Your task to perform on an android device: View the shopping cart on ebay.com. Image 0: 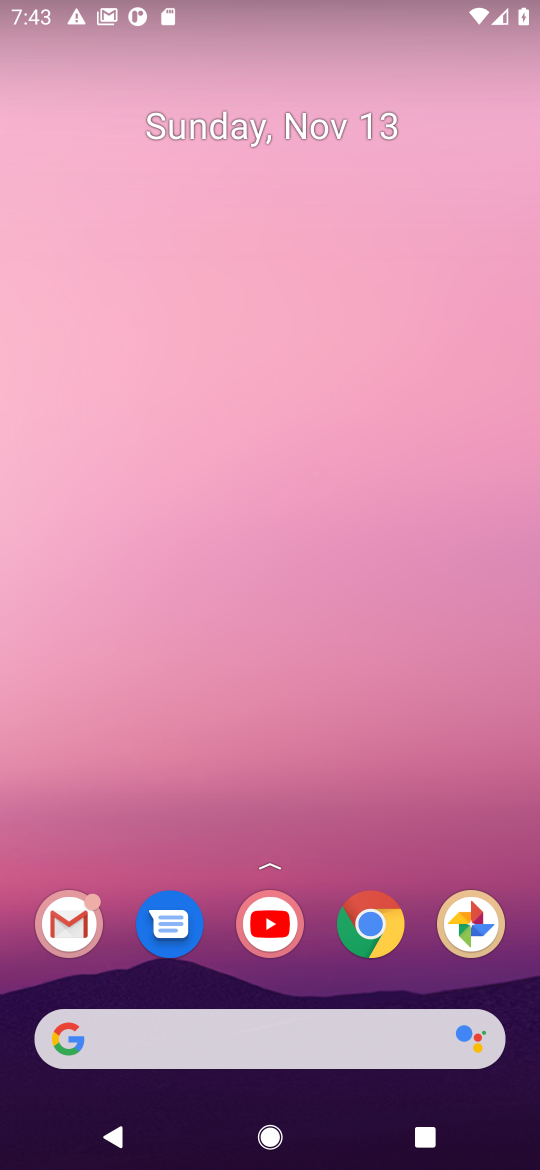
Step 0: click (379, 932)
Your task to perform on an android device: View the shopping cart on ebay.com. Image 1: 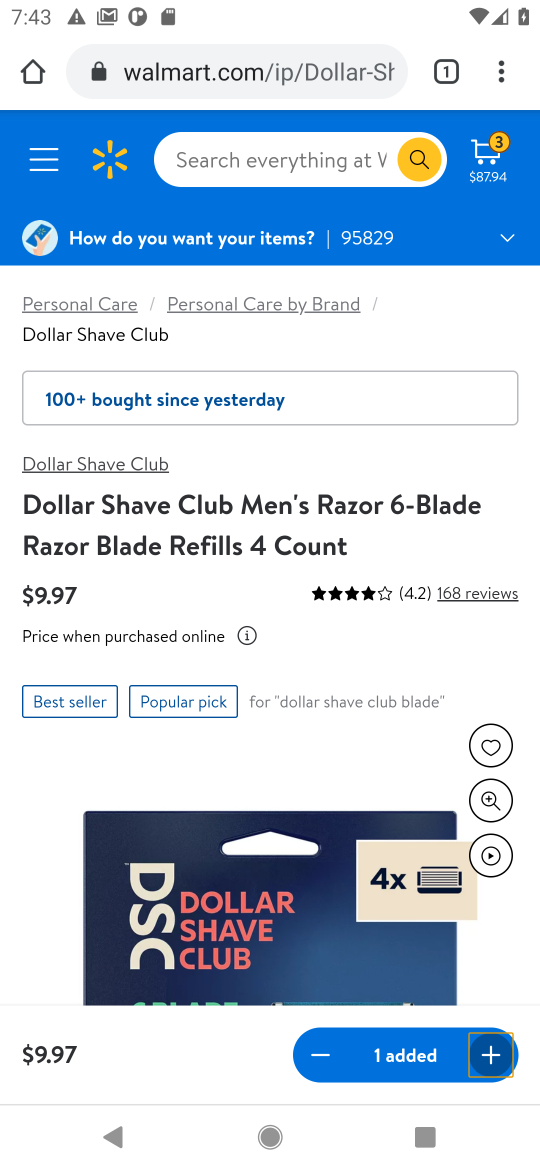
Step 1: click (317, 78)
Your task to perform on an android device: View the shopping cart on ebay.com. Image 2: 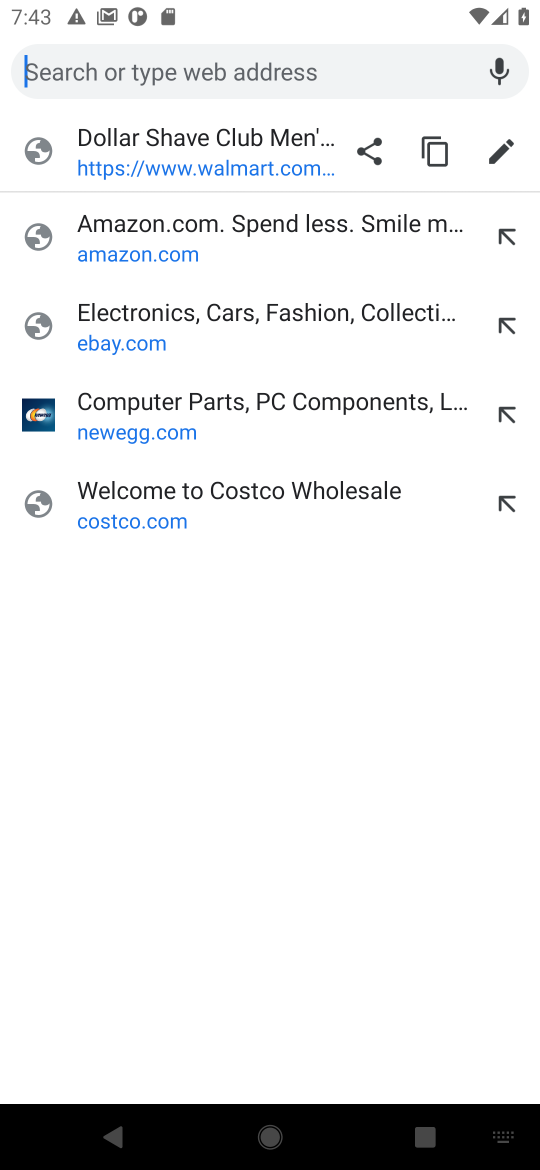
Step 2: click (165, 338)
Your task to perform on an android device: View the shopping cart on ebay.com. Image 3: 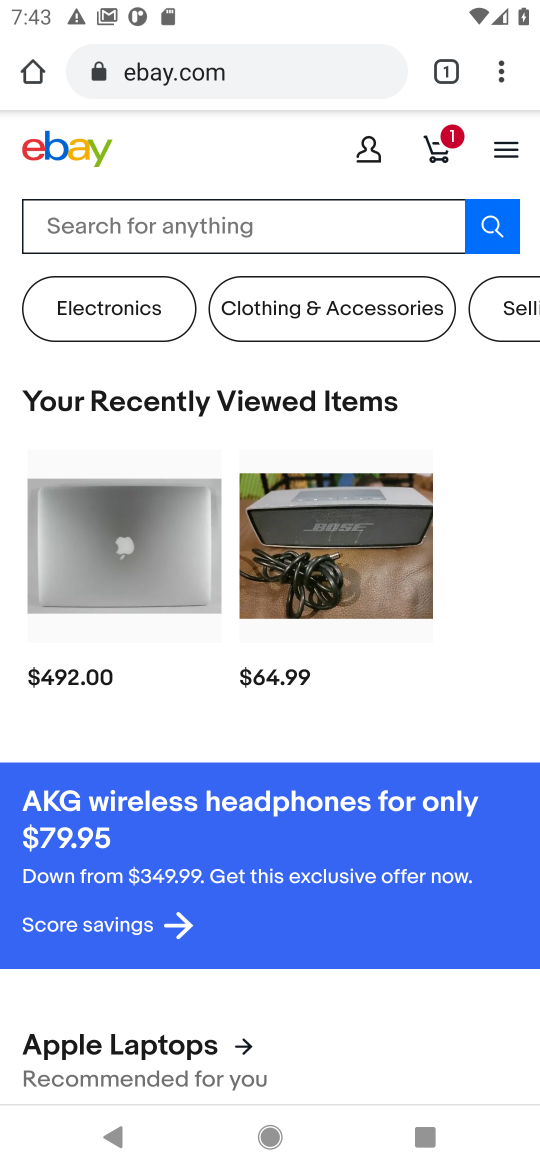
Step 3: click (441, 146)
Your task to perform on an android device: View the shopping cart on ebay.com. Image 4: 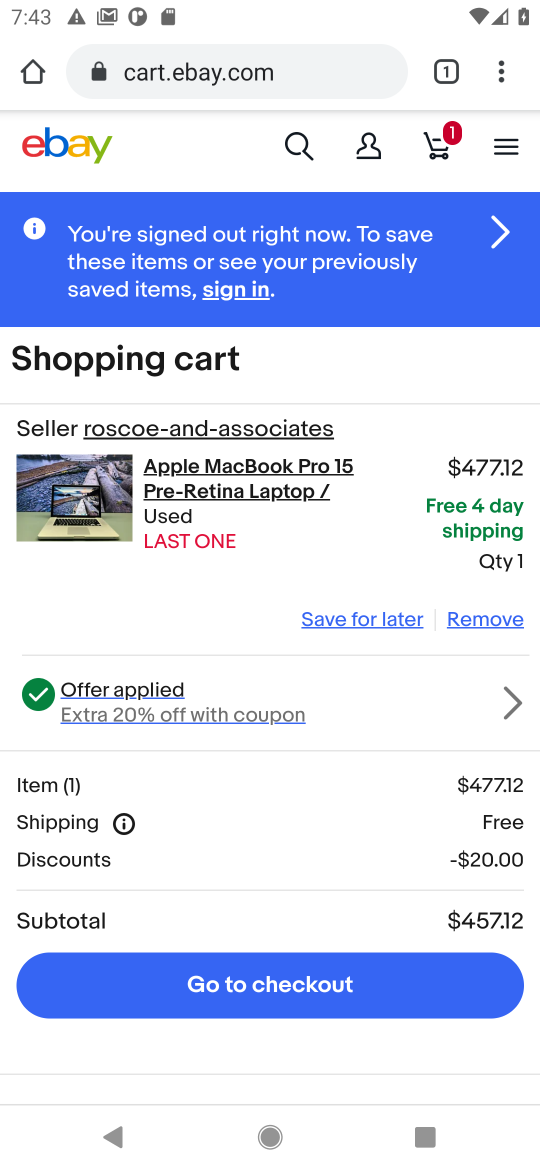
Step 4: task complete